Your task to perform on an android device: find photos in the google photos app Image 0: 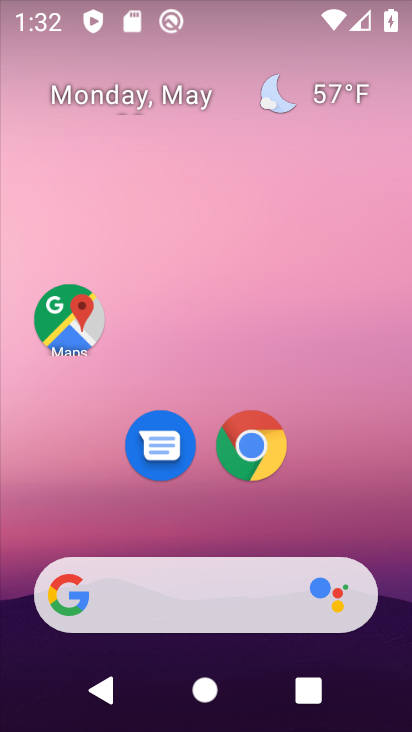
Step 0: drag from (214, 525) to (216, 116)
Your task to perform on an android device: find photos in the google photos app Image 1: 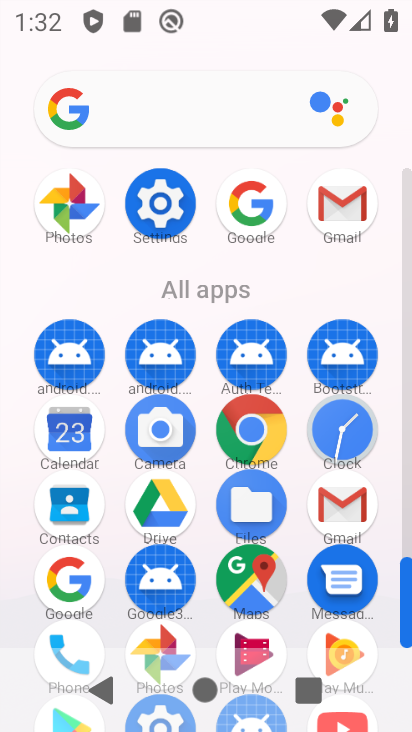
Step 1: click (70, 219)
Your task to perform on an android device: find photos in the google photos app Image 2: 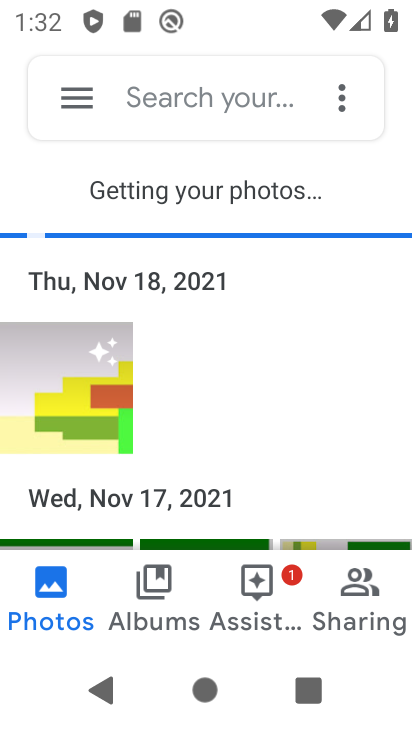
Step 2: task complete